Your task to perform on an android device: Open network settings Image 0: 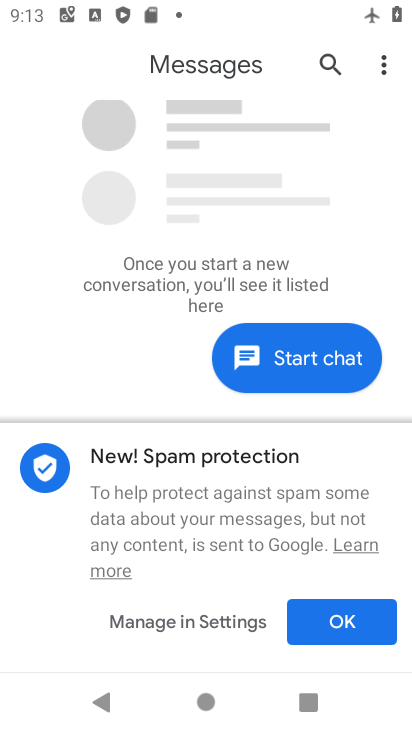
Step 0: press home button
Your task to perform on an android device: Open network settings Image 1: 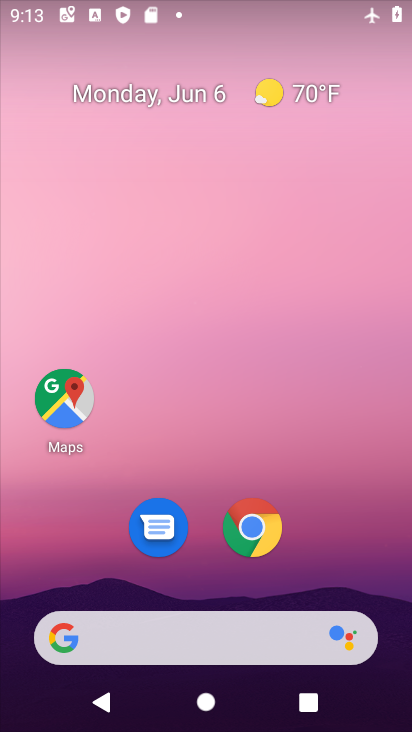
Step 1: drag from (230, 569) to (254, 356)
Your task to perform on an android device: Open network settings Image 2: 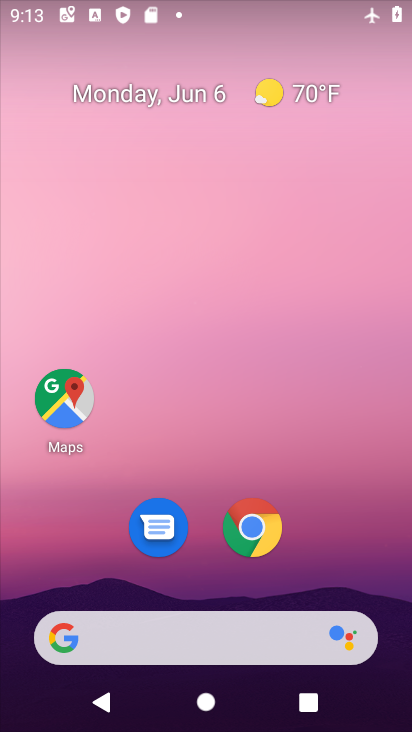
Step 2: drag from (253, 314) to (290, 141)
Your task to perform on an android device: Open network settings Image 3: 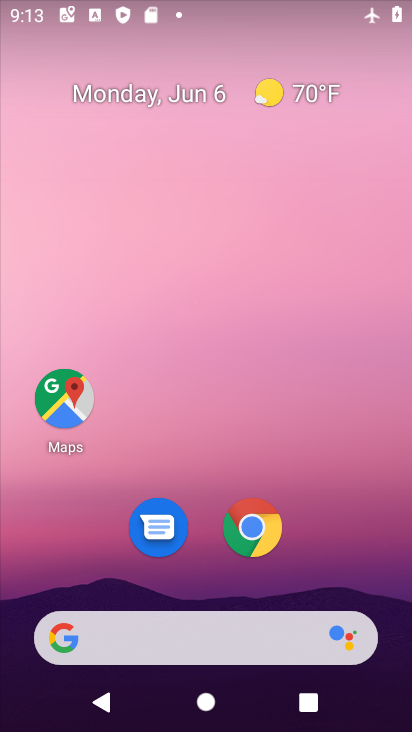
Step 3: drag from (157, 485) to (201, 183)
Your task to perform on an android device: Open network settings Image 4: 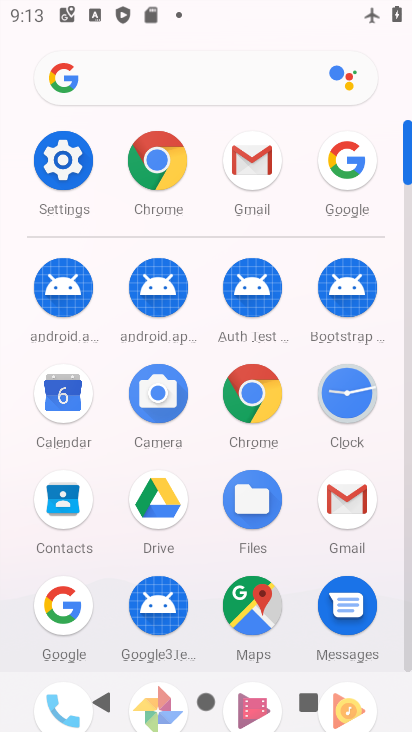
Step 4: click (79, 168)
Your task to perform on an android device: Open network settings Image 5: 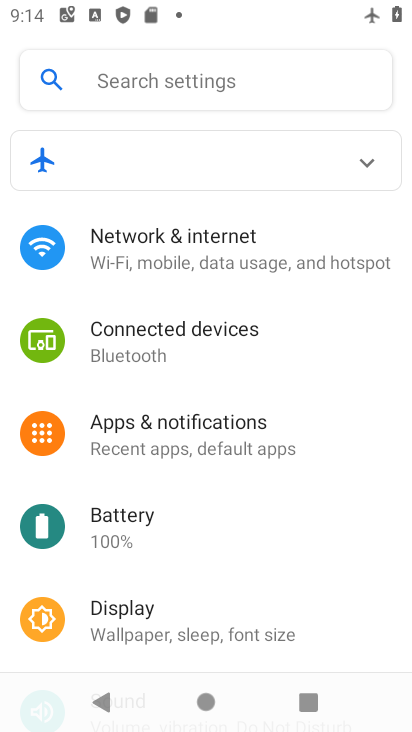
Step 5: click (203, 280)
Your task to perform on an android device: Open network settings Image 6: 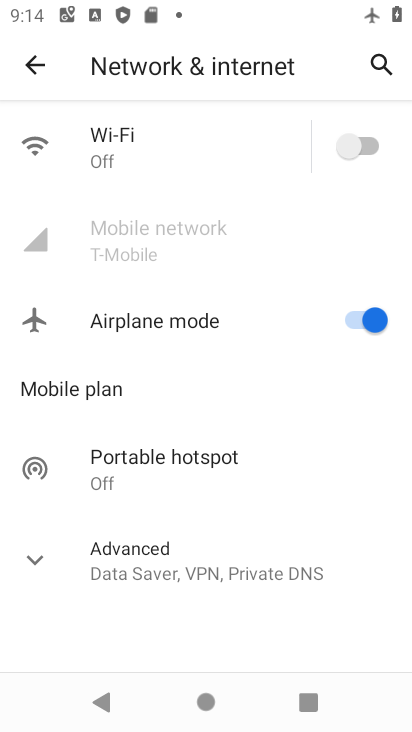
Step 6: click (192, 250)
Your task to perform on an android device: Open network settings Image 7: 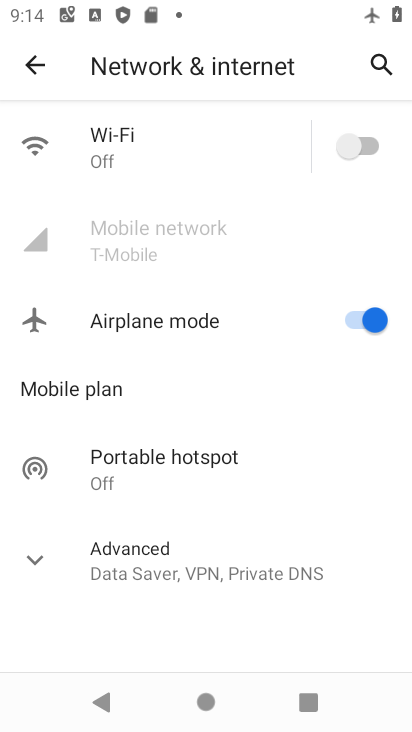
Step 7: task complete